Your task to perform on an android device: Open Maps and search for coffee Image 0: 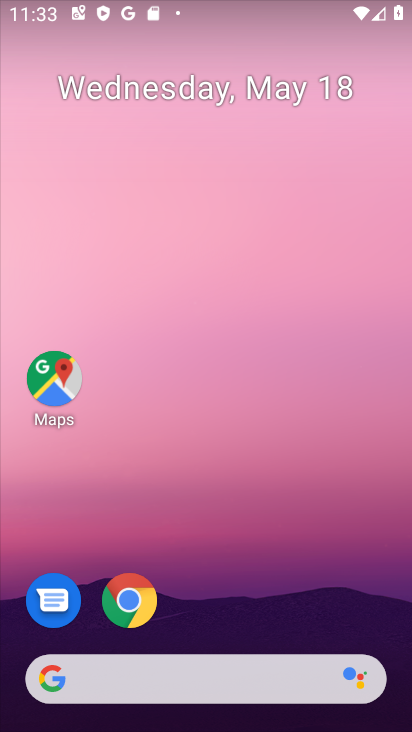
Step 0: click (39, 368)
Your task to perform on an android device: Open Maps and search for coffee Image 1: 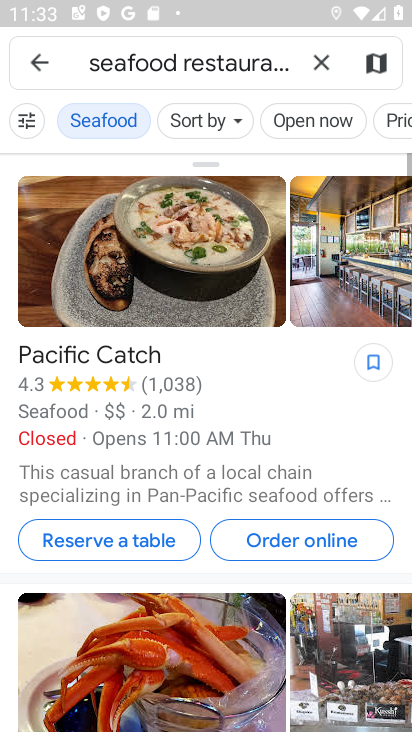
Step 1: click (32, 60)
Your task to perform on an android device: Open Maps and search for coffee Image 2: 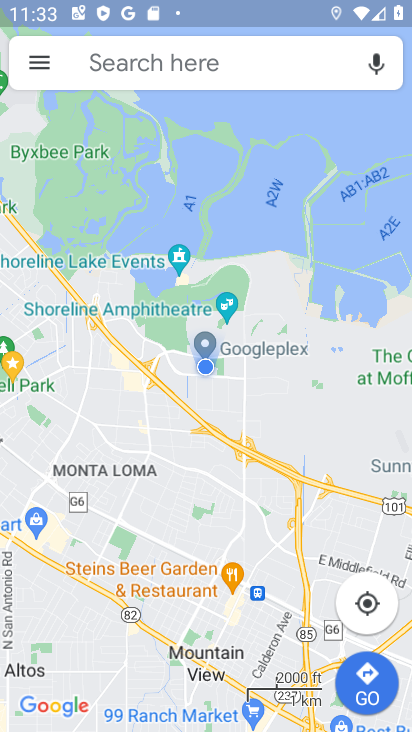
Step 2: click (150, 59)
Your task to perform on an android device: Open Maps and search for coffee Image 3: 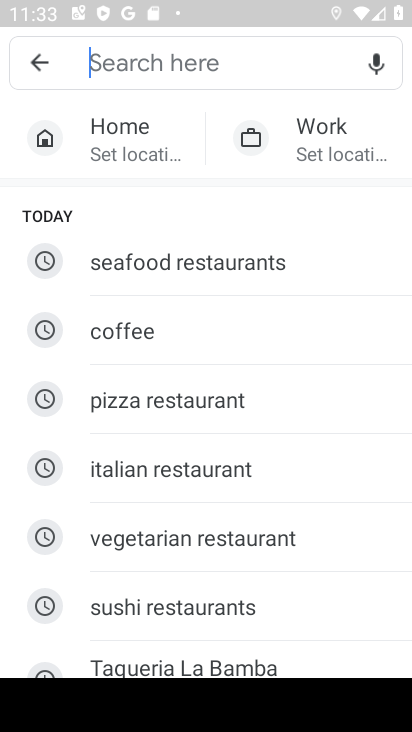
Step 3: type "coffee"
Your task to perform on an android device: Open Maps and search for coffee Image 4: 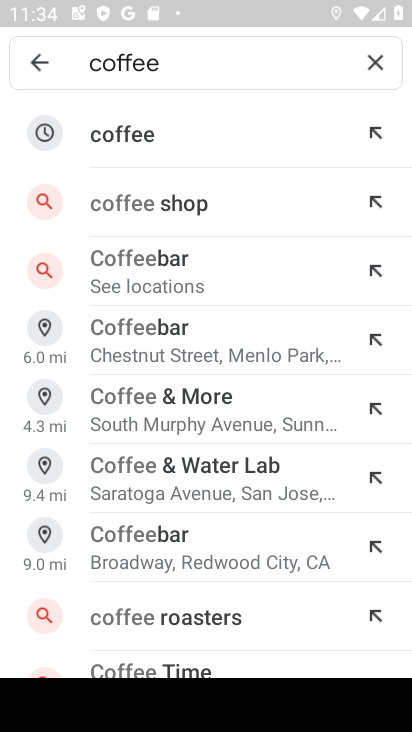
Step 4: click (125, 143)
Your task to perform on an android device: Open Maps and search for coffee Image 5: 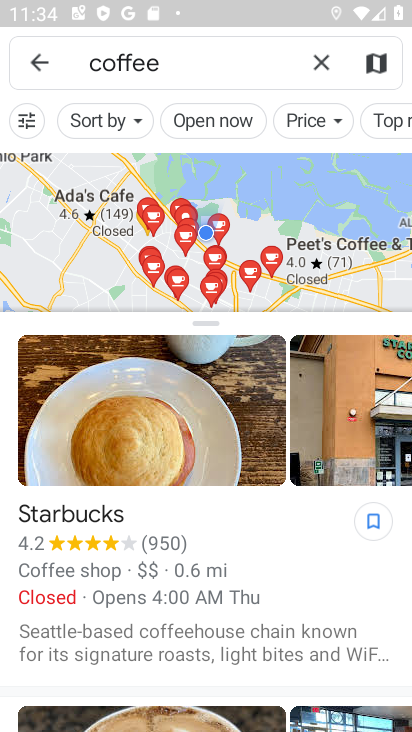
Step 5: task complete